Your task to perform on an android device: set default search engine in the chrome app Image 0: 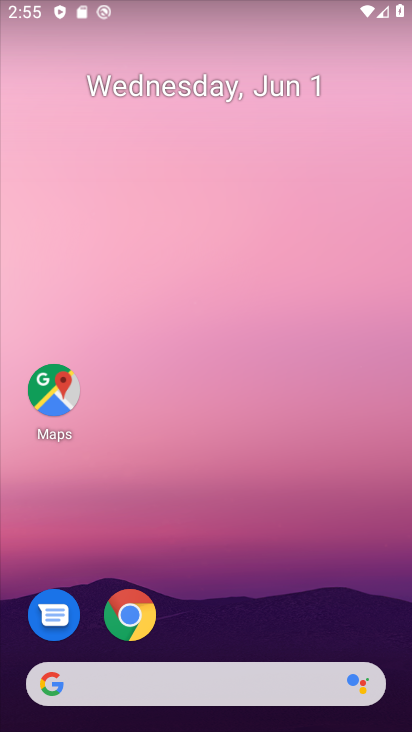
Step 0: drag from (340, 678) to (407, 416)
Your task to perform on an android device: set default search engine in the chrome app Image 1: 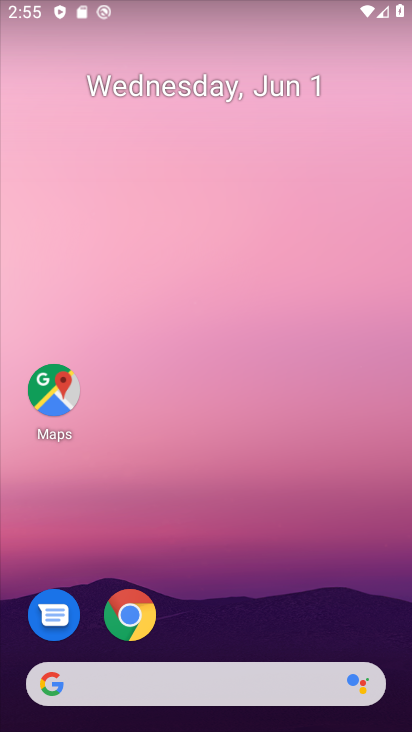
Step 1: click (131, 508)
Your task to perform on an android device: set default search engine in the chrome app Image 2: 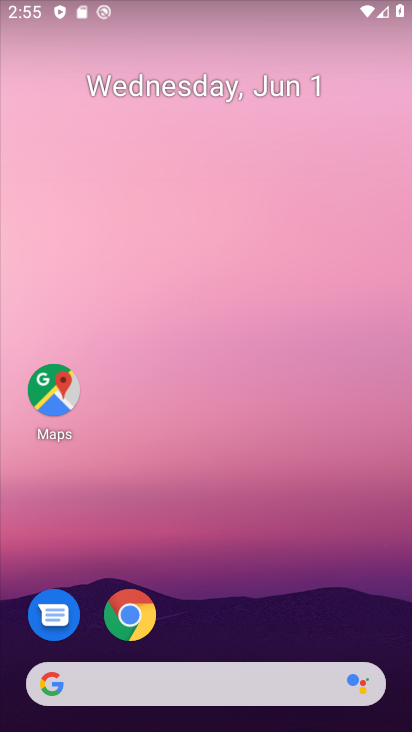
Step 2: drag from (274, 470) to (316, 29)
Your task to perform on an android device: set default search engine in the chrome app Image 3: 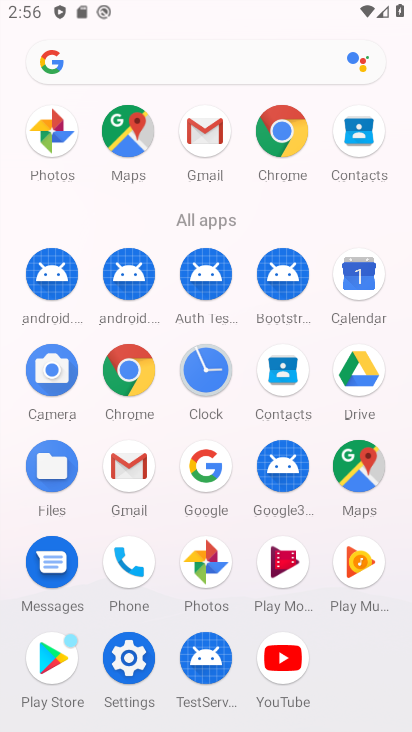
Step 3: click (129, 355)
Your task to perform on an android device: set default search engine in the chrome app Image 4: 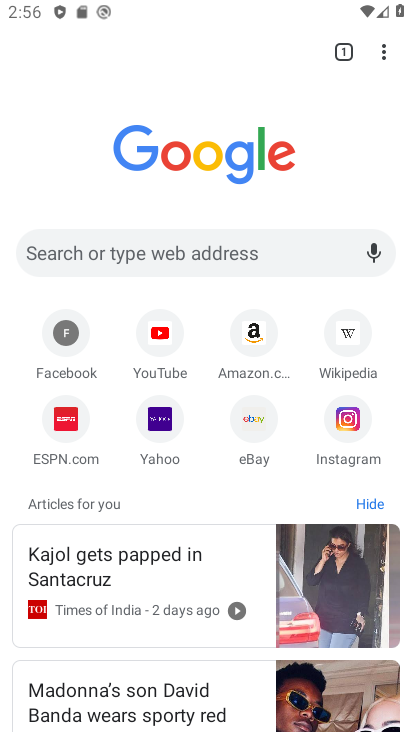
Step 4: drag from (376, 39) to (191, 440)
Your task to perform on an android device: set default search engine in the chrome app Image 5: 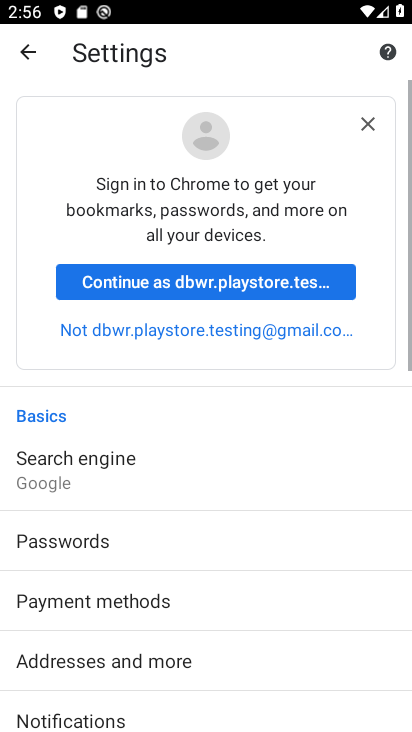
Step 5: drag from (267, 708) to (309, 430)
Your task to perform on an android device: set default search engine in the chrome app Image 6: 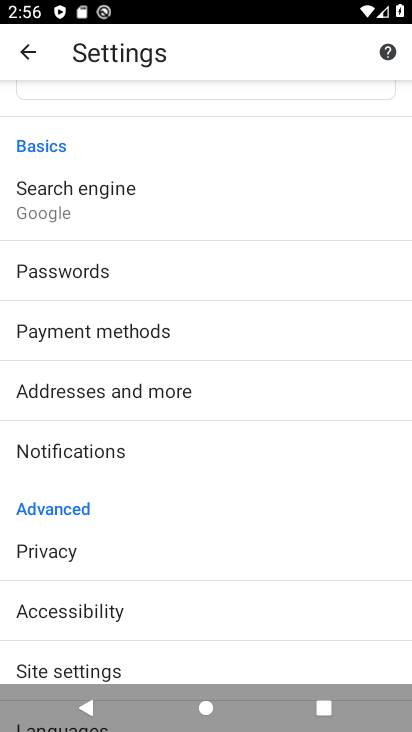
Step 6: click (151, 200)
Your task to perform on an android device: set default search engine in the chrome app Image 7: 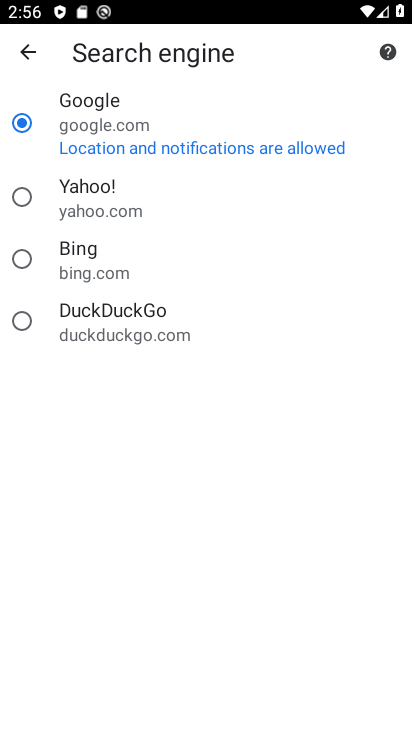
Step 7: task complete